Your task to perform on an android device: make emails show in primary in the gmail app Image 0: 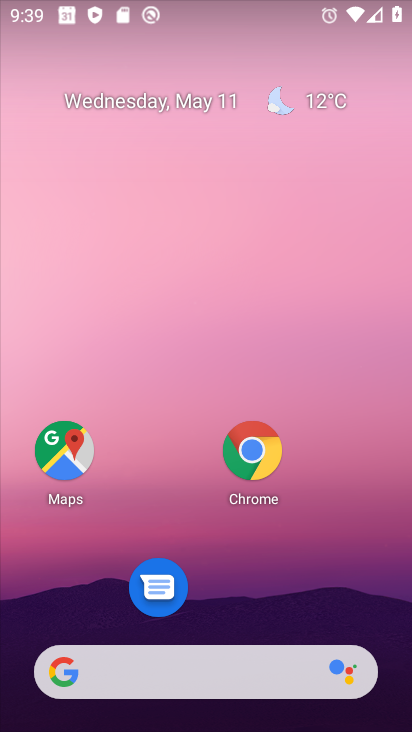
Step 0: drag from (365, 591) to (365, 0)
Your task to perform on an android device: make emails show in primary in the gmail app Image 1: 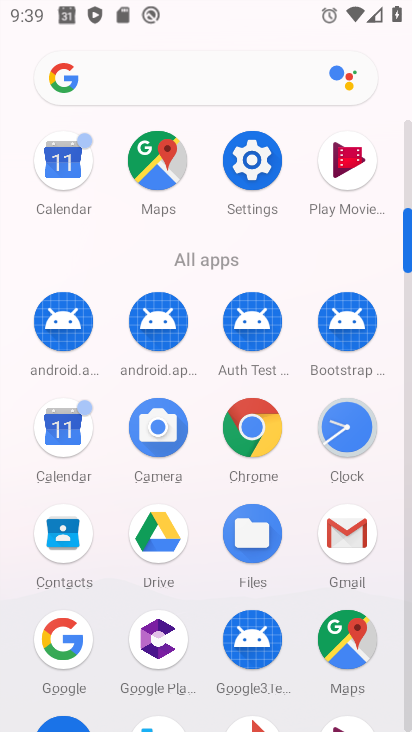
Step 1: click (349, 543)
Your task to perform on an android device: make emails show in primary in the gmail app Image 2: 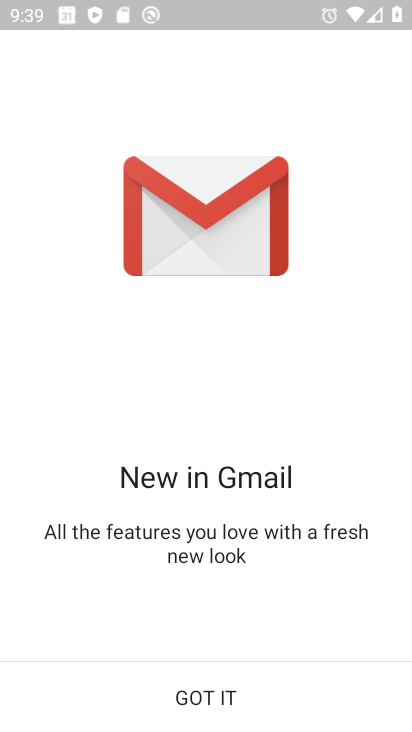
Step 2: click (203, 704)
Your task to perform on an android device: make emails show in primary in the gmail app Image 3: 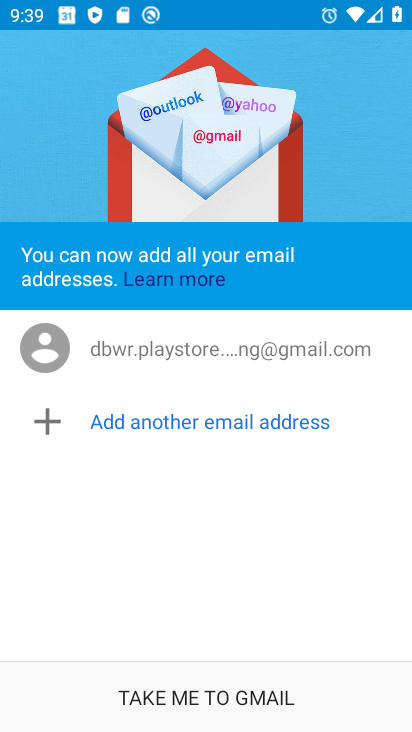
Step 3: click (203, 704)
Your task to perform on an android device: make emails show in primary in the gmail app Image 4: 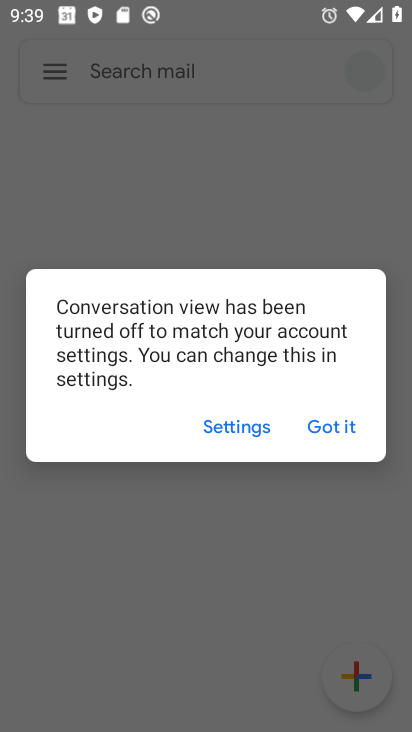
Step 4: click (332, 430)
Your task to perform on an android device: make emails show in primary in the gmail app Image 5: 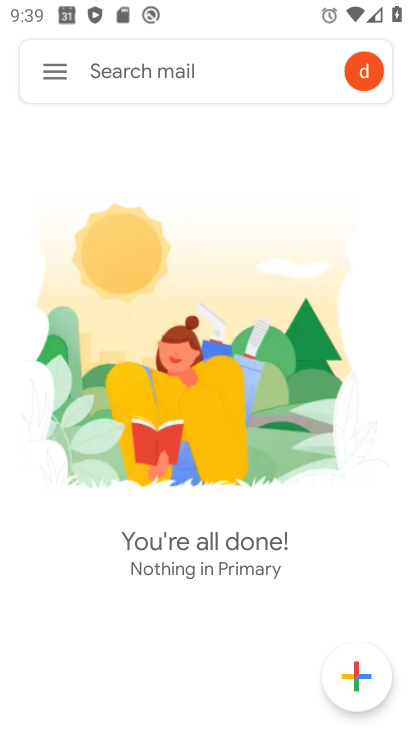
Step 5: click (54, 57)
Your task to perform on an android device: make emails show in primary in the gmail app Image 6: 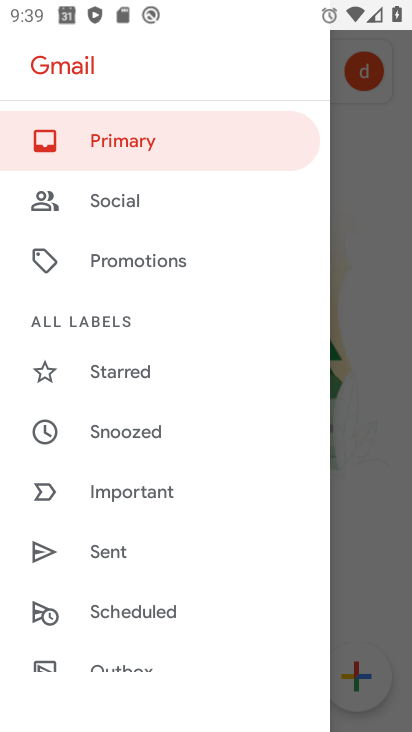
Step 6: drag from (158, 425) to (107, 113)
Your task to perform on an android device: make emails show in primary in the gmail app Image 7: 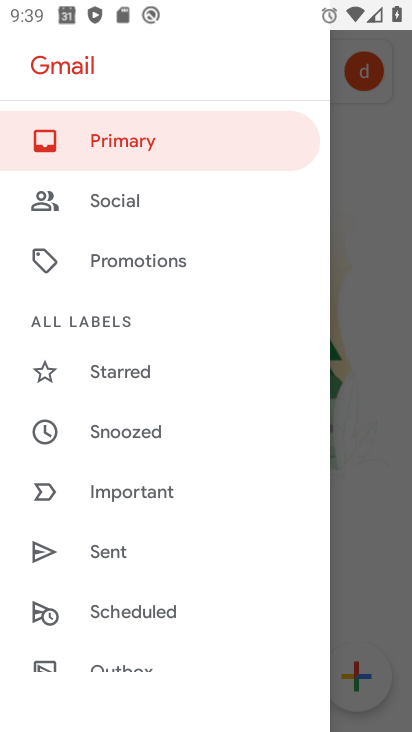
Step 7: drag from (214, 545) to (272, 250)
Your task to perform on an android device: make emails show in primary in the gmail app Image 8: 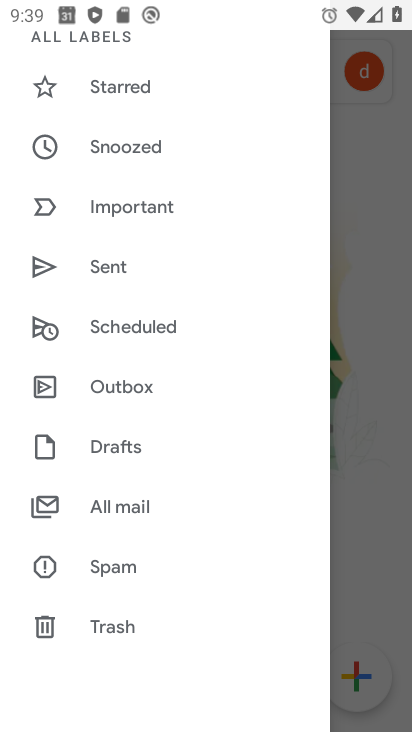
Step 8: drag from (152, 623) to (153, 149)
Your task to perform on an android device: make emails show in primary in the gmail app Image 9: 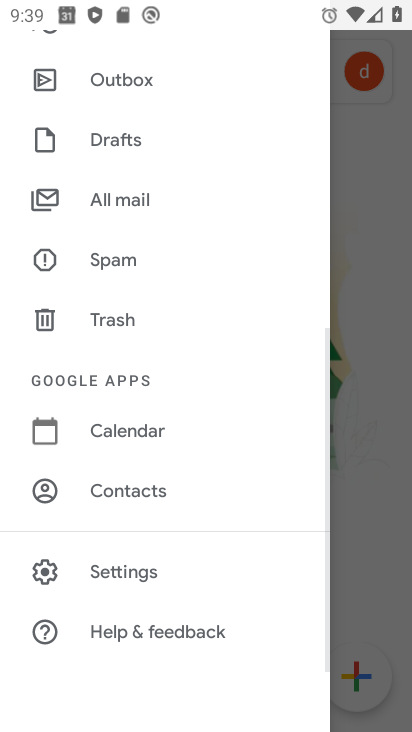
Step 9: click (112, 572)
Your task to perform on an android device: make emails show in primary in the gmail app Image 10: 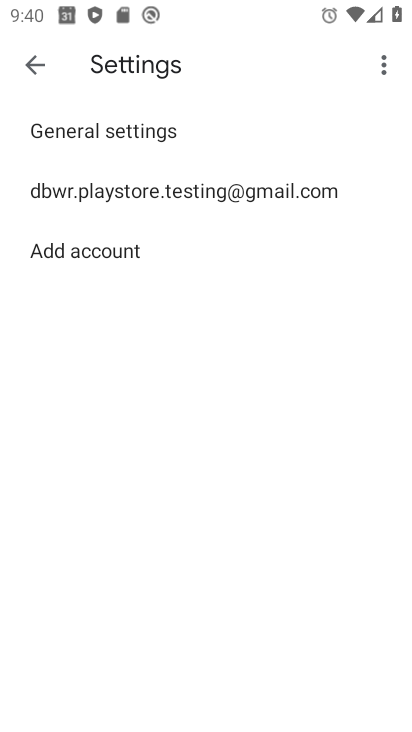
Step 10: click (70, 182)
Your task to perform on an android device: make emails show in primary in the gmail app Image 11: 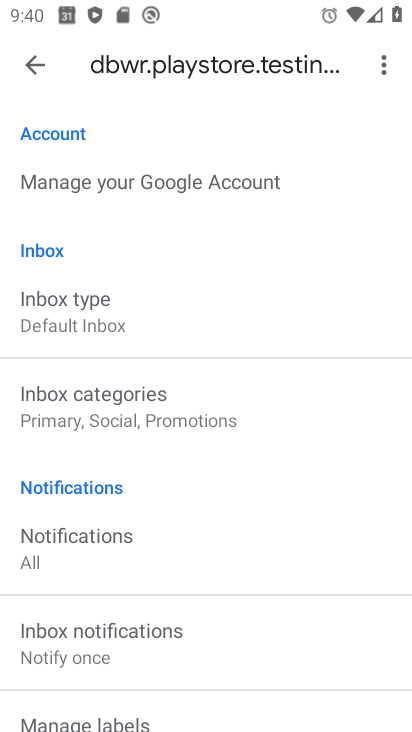
Step 11: click (113, 417)
Your task to perform on an android device: make emails show in primary in the gmail app Image 12: 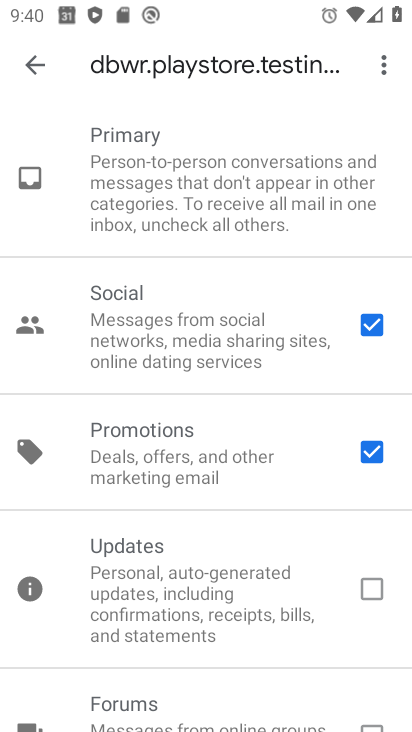
Step 12: click (361, 324)
Your task to perform on an android device: make emails show in primary in the gmail app Image 13: 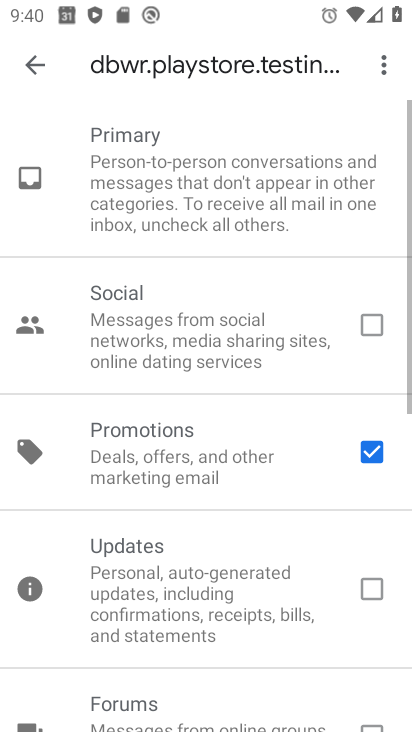
Step 13: click (377, 440)
Your task to perform on an android device: make emails show in primary in the gmail app Image 14: 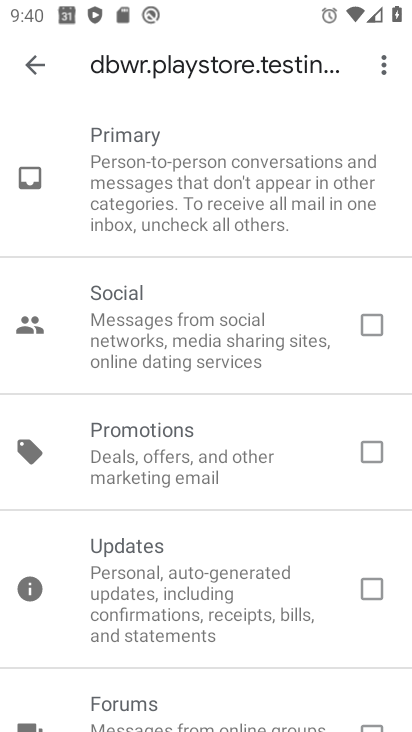
Step 14: click (37, 77)
Your task to perform on an android device: make emails show in primary in the gmail app Image 15: 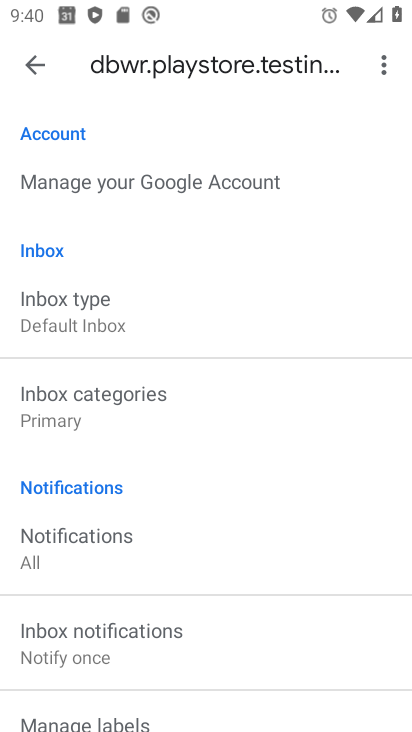
Step 15: task complete